Your task to perform on an android device: check storage Image 0: 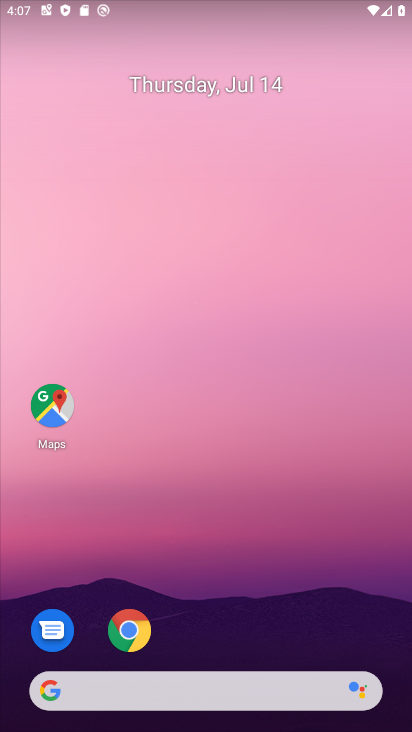
Step 0: drag from (245, 616) to (297, 55)
Your task to perform on an android device: check storage Image 1: 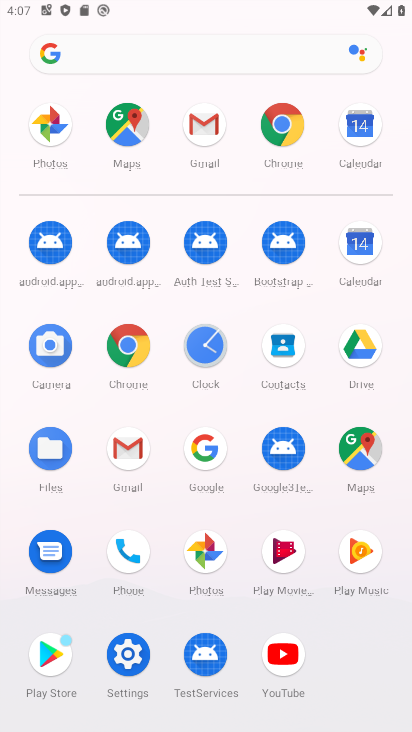
Step 1: click (126, 643)
Your task to perform on an android device: check storage Image 2: 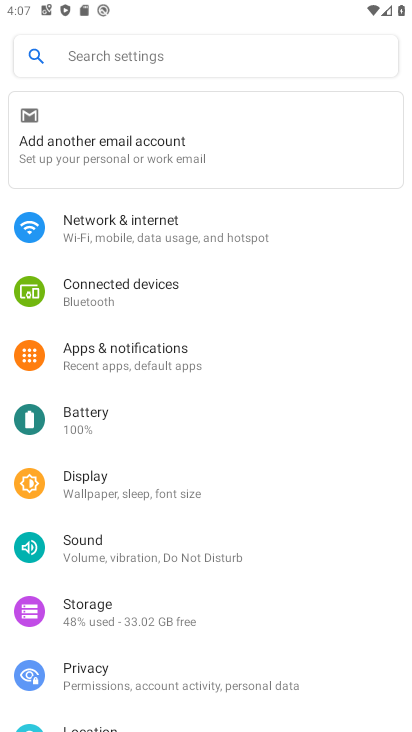
Step 2: click (100, 610)
Your task to perform on an android device: check storage Image 3: 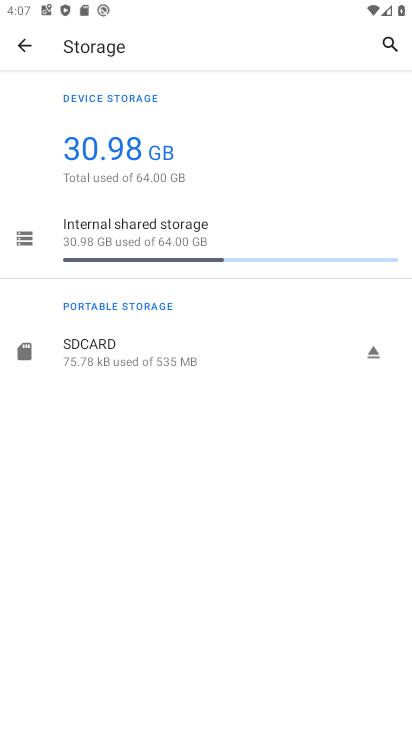
Step 3: task complete